Your task to perform on an android device: delete a single message in the gmail app Image 0: 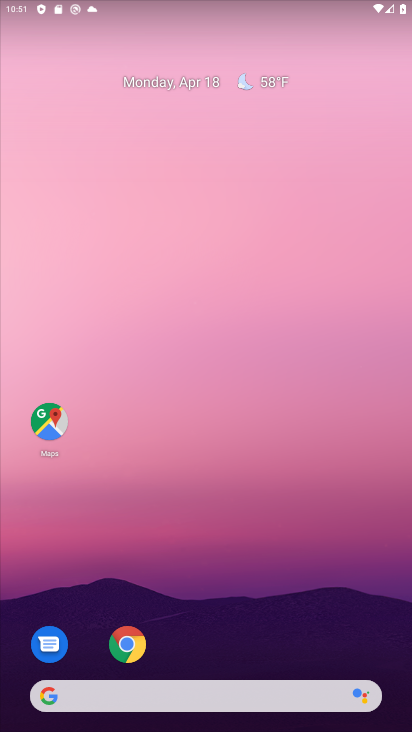
Step 0: drag from (184, 644) to (233, 106)
Your task to perform on an android device: delete a single message in the gmail app Image 1: 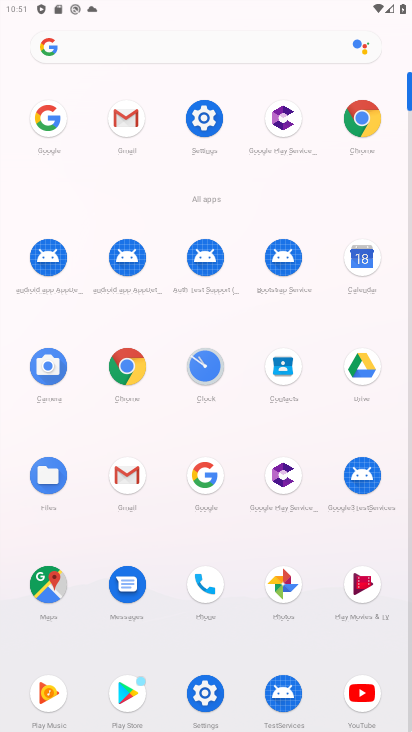
Step 1: click (125, 476)
Your task to perform on an android device: delete a single message in the gmail app Image 2: 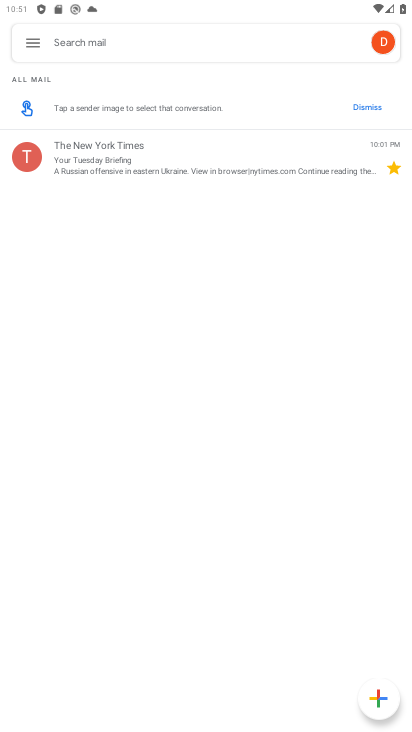
Step 2: click (299, 155)
Your task to perform on an android device: delete a single message in the gmail app Image 3: 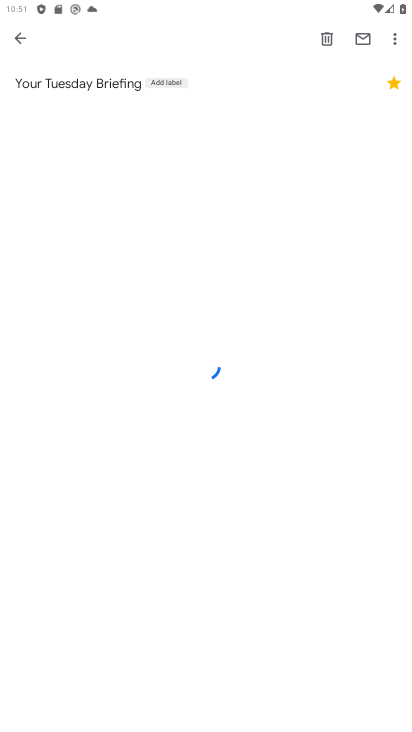
Step 3: click (327, 44)
Your task to perform on an android device: delete a single message in the gmail app Image 4: 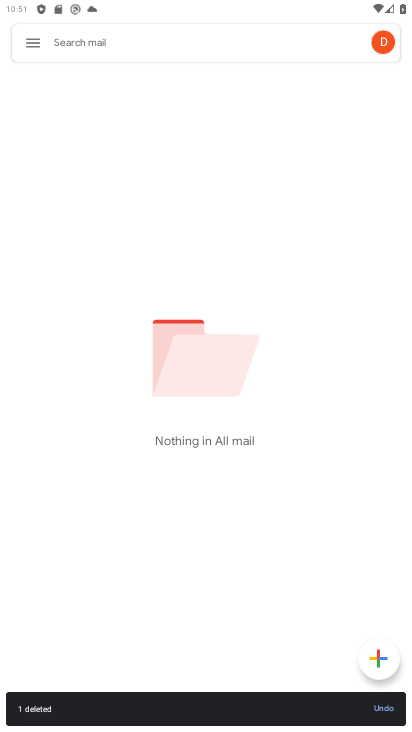
Step 4: task complete